Your task to perform on an android device: Open Youtube and go to "Your channel" Image 0: 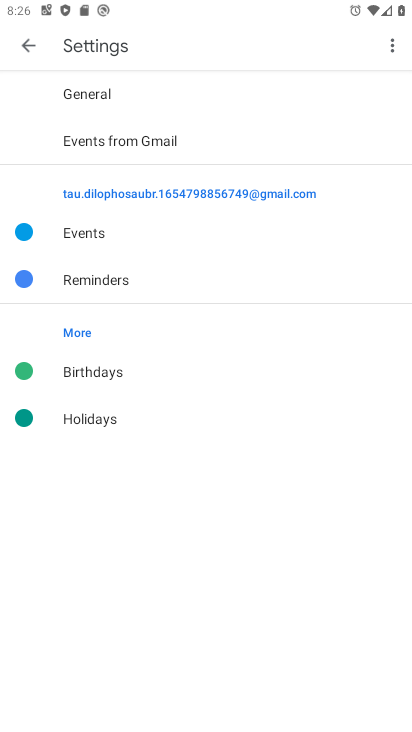
Step 0: press home button
Your task to perform on an android device: Open Youtube and go to "Your channel" Image 1: 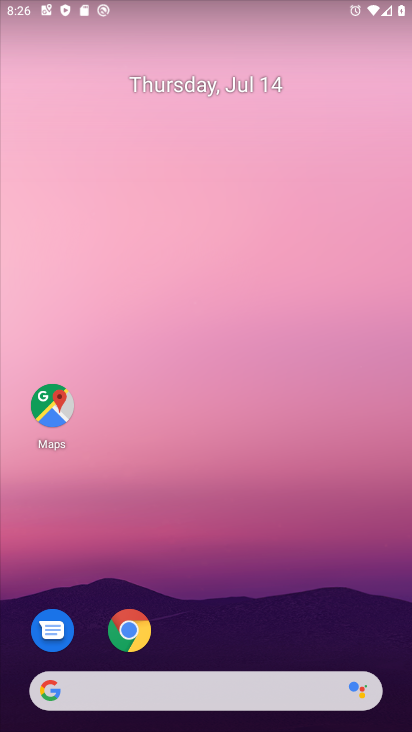
Step 1: drag from (258, 724) to (246, 276)
Your task to perform on an android device: Open Youtube and go to "Your channel" Image 2: 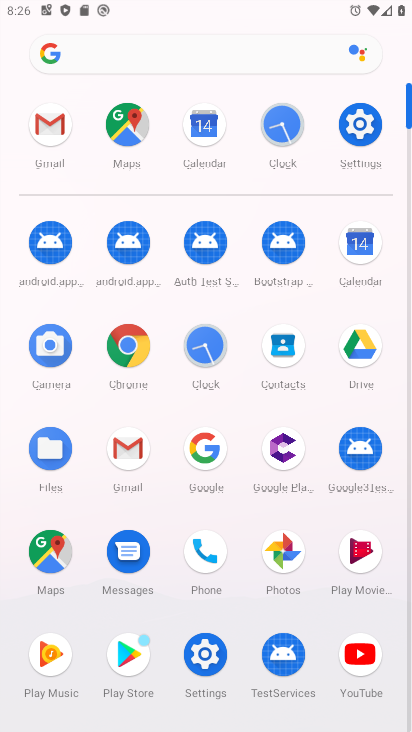
Step 2: click (350, 656)
Your task to perform on an android device: Open Youtube and go to "Your channel" Image 3: 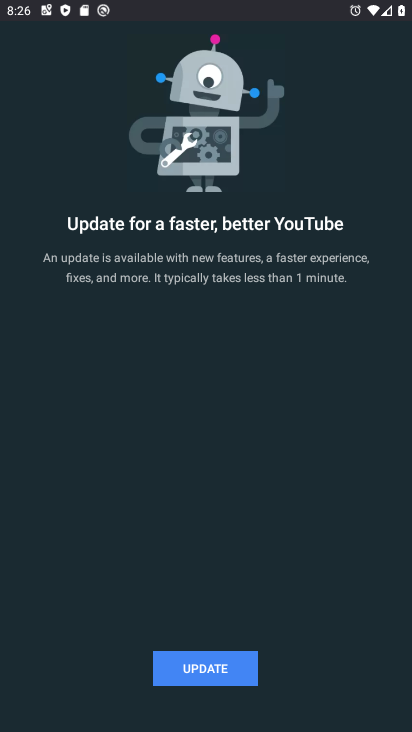
Step 3: task complete